Your task to perform on an android device: find snoozed emails in the gmail app Image 0: 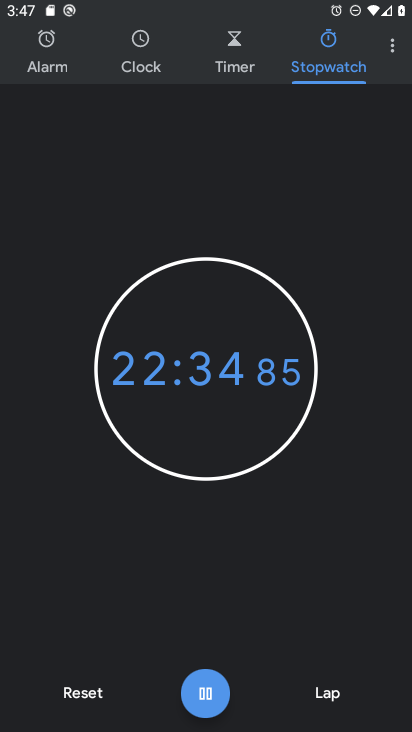
Step 0: press home button
Your task to perform on an android device: find snoozed emails in the gmail app Image 1: 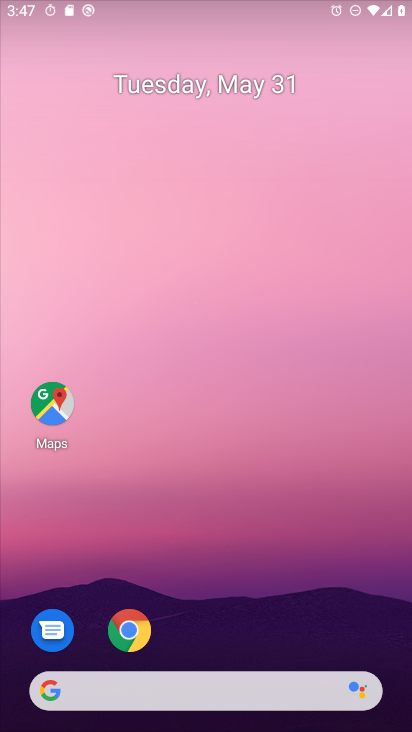
Step 1: drag from (297, 726) to (383, 12)
Your task to perform on an android device: find snoozed emails in the gmail app Image 2: 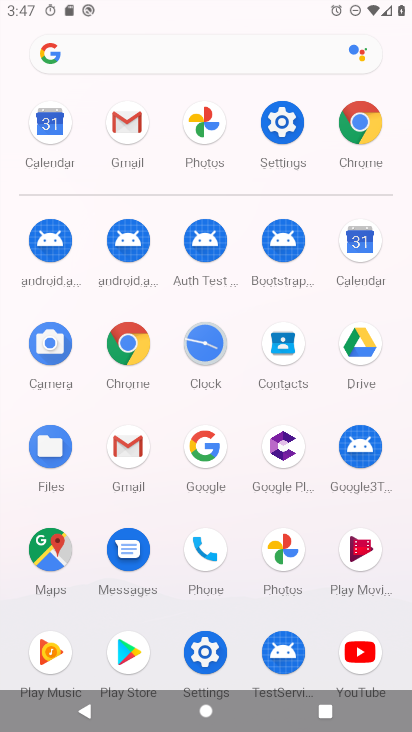
Step 2: click (127, 443)
Your task to perform on an android device: find snoozed emails in the gmail app Image 3: 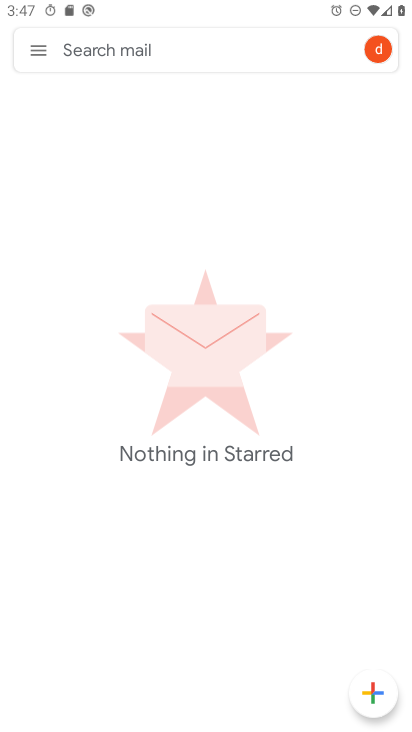
Step 3: click (25, 56)
Your task to perform on an android device: find snoozed emails in the gmail app Image 4: 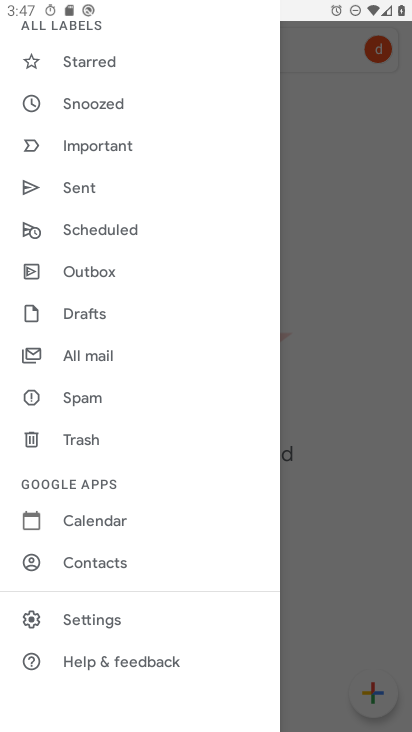
Step 4: click (101, 109)
Your task to perform on an android device: find snoozed emails in the gmail app Image 5: 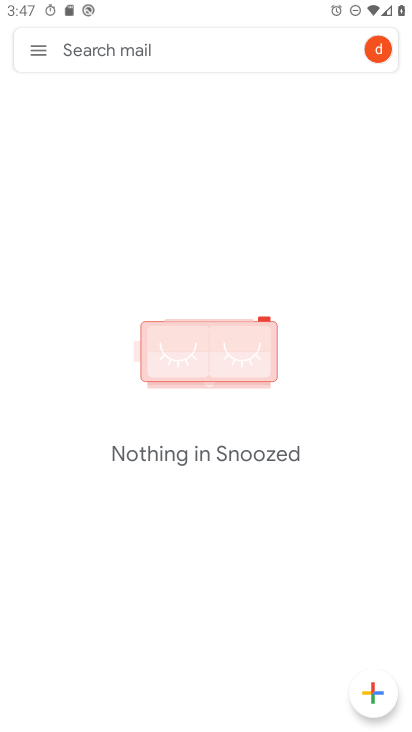
Step 5: task complete